Your task to perform on an android device: see sites visited before in the chrome app Image 0: 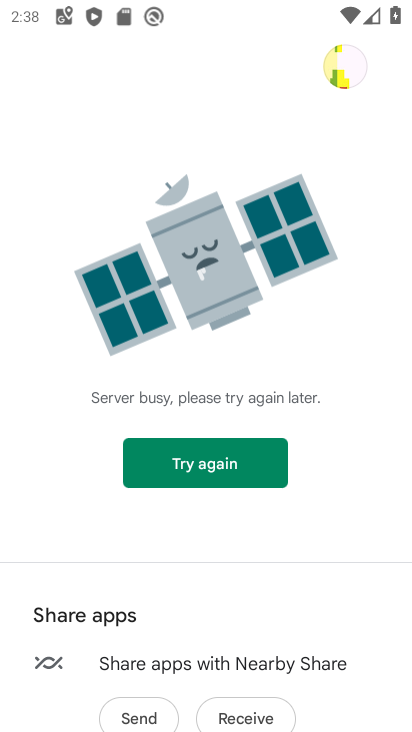
Step 0: press home button
Your task to perform on an android device: see sites visited before in the chrome app Image 1: 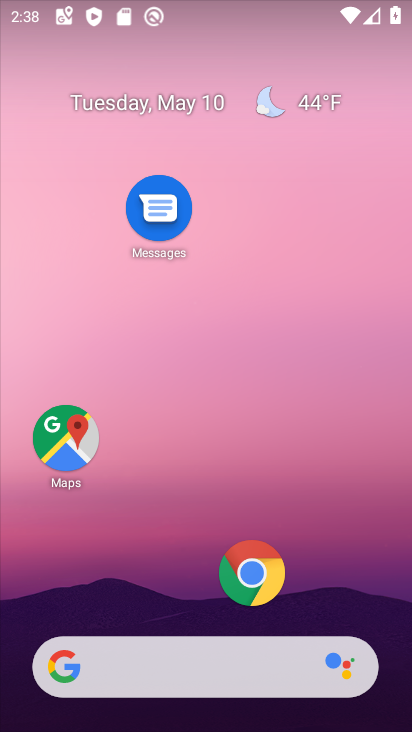
Step 1: click (256, 569)
Your task to perform on an android device: see sites visited before in the chrome app Image 2: 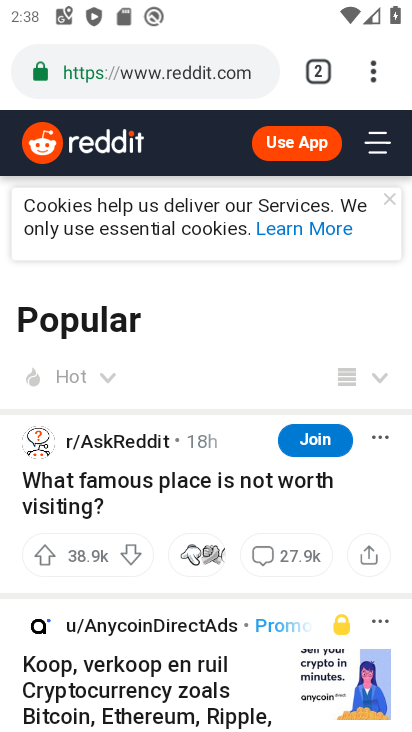
Step 2: task complete